Your task to perform on an android device: Go to Reddit.com Image 0: 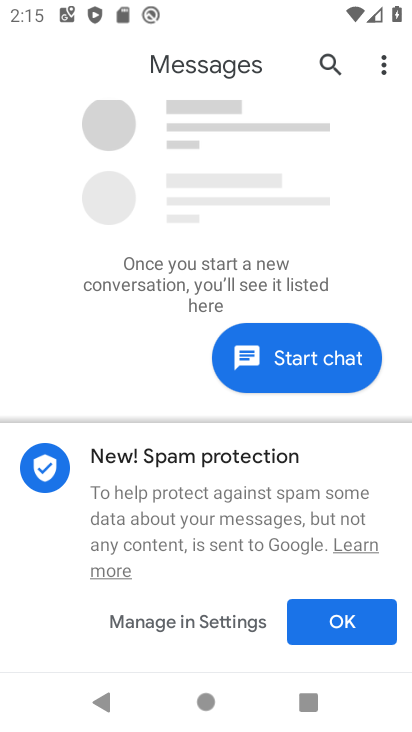
Step 0: press home button
Your task to perform on an android device: Go to Reddit.com Image 1: 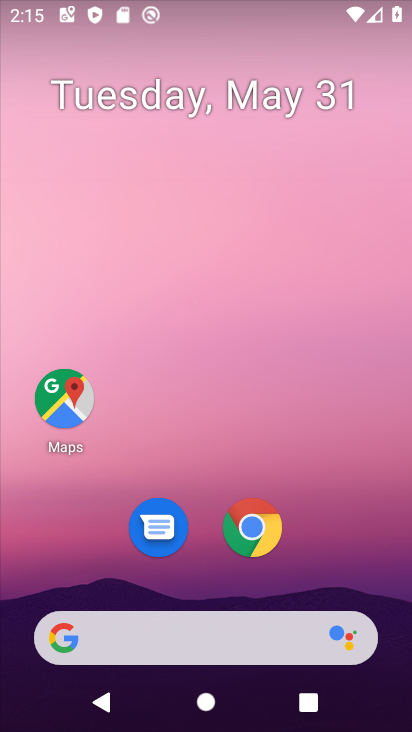
Step 1: drag from (334, 453) to (282, 110)
Your task to perform on an android device: Go to Reddit.com Image 2: 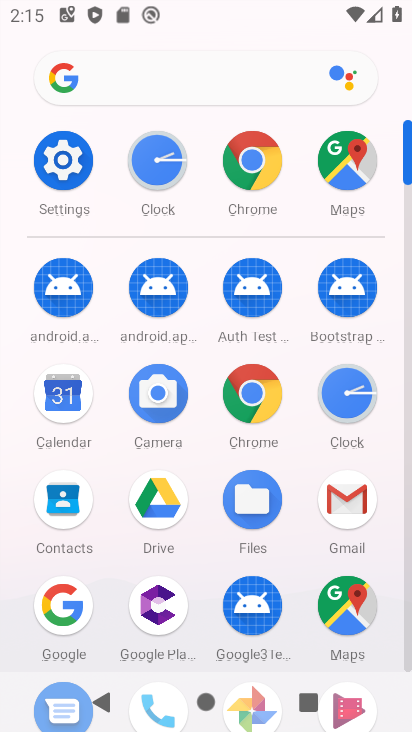
Step 2: click (257, 146)
Your task to perform on an android device: Go to Reddit.com Image 3: 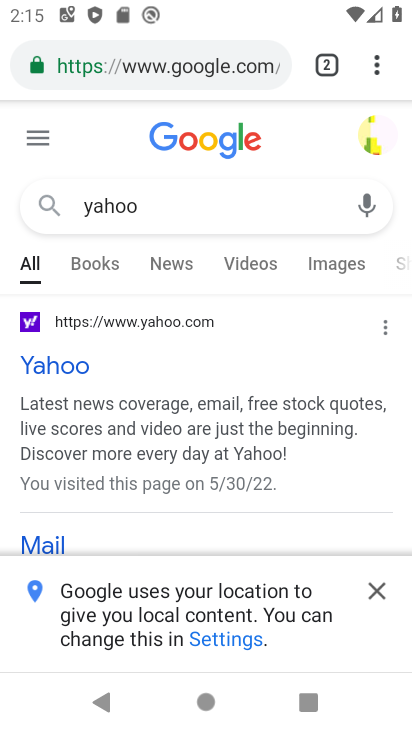
Step 3: click (201, 60)
Your task to perform on an android device: Go to Reddit.com Image 4: 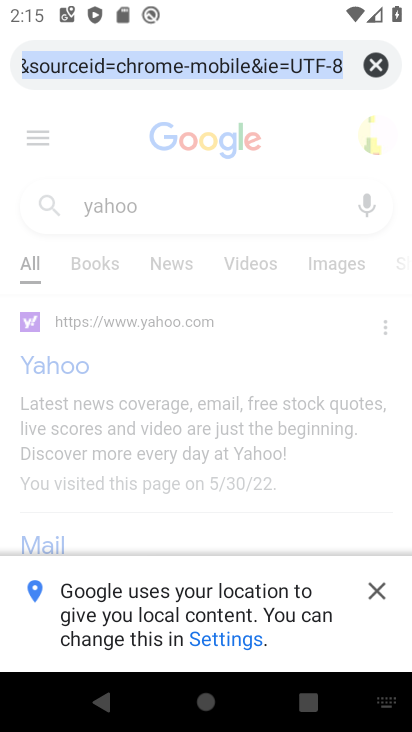
Step 4: click (379, 60)
Your task to perform on an android device: Go to Reddit.com Image 5: 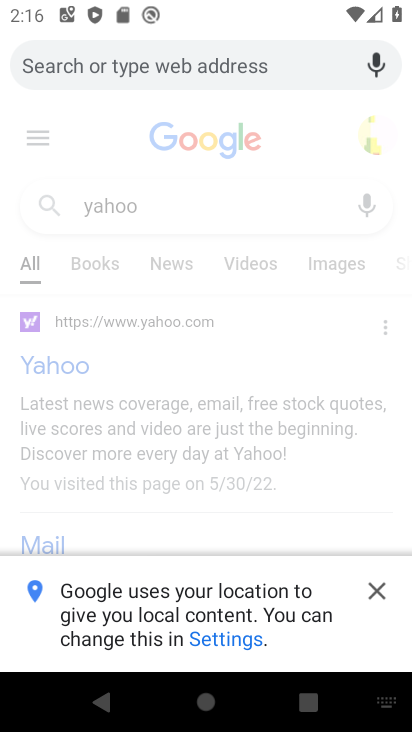
Step 5: type "reddit"
Your task to perform on an android device: Go to Reddit.com Image 6: 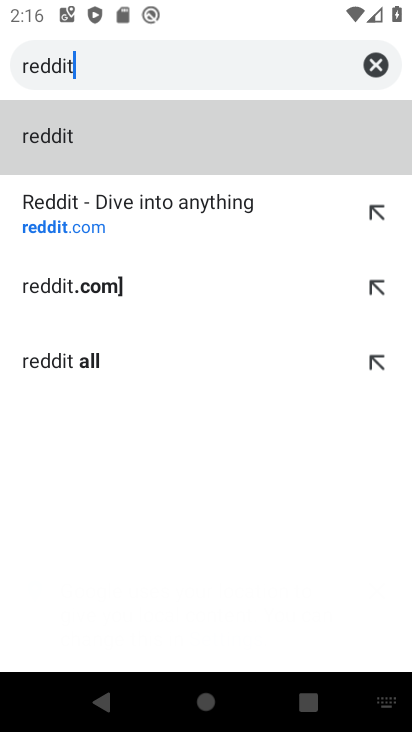
Step 6: click (58, 221)
Your task to perform on an android device: Go to Reddit.com Image 7: 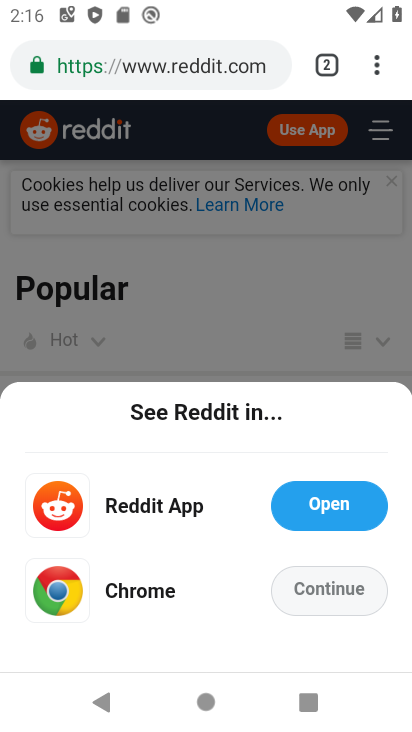
Step 7: task complete